Your task to perform on an android device: refresh tabs in the chrome app Image 0: 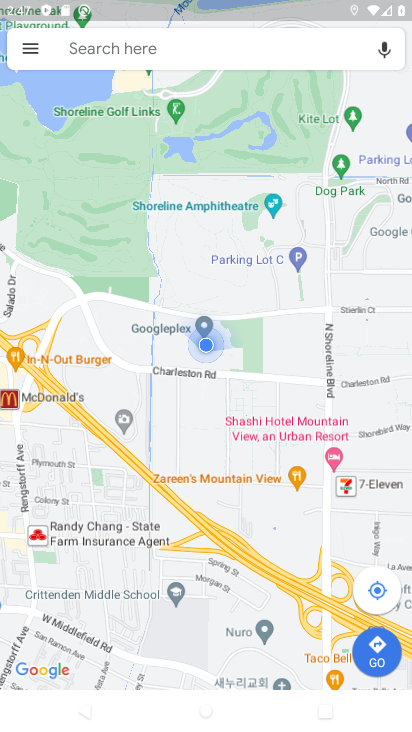
Step 0: press home button
Your task to perform on an android device: refresh tabs in the chrome app Image 1: 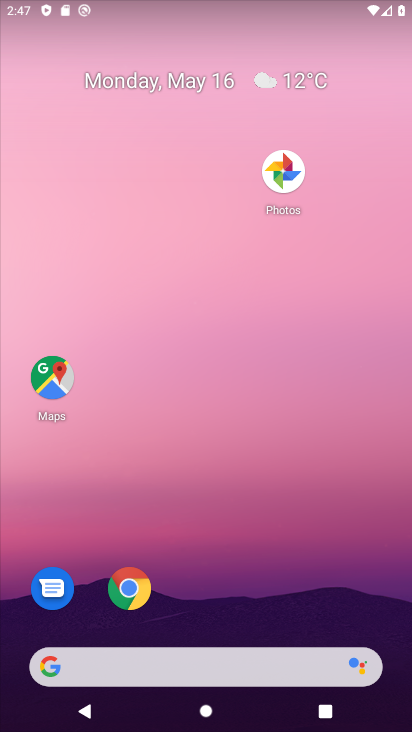
Step 1: click (132, 588)
Your task to perform on an android device: refresh tabs in the chrome app Image 2: 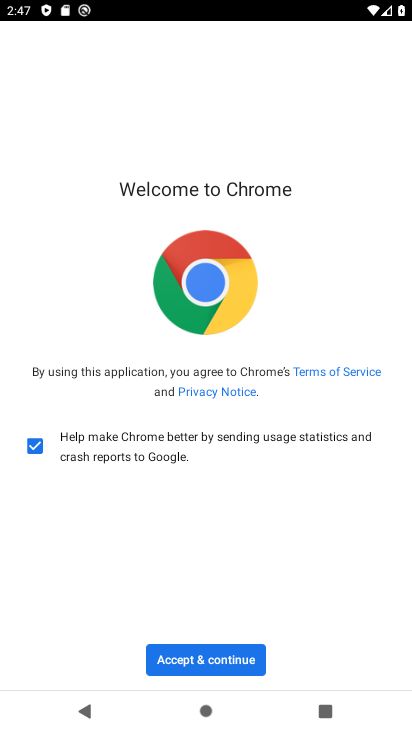
Step 2: click (199, 660)
Your task to perform on an android device: refresh tabs in the chrome app Image 3: 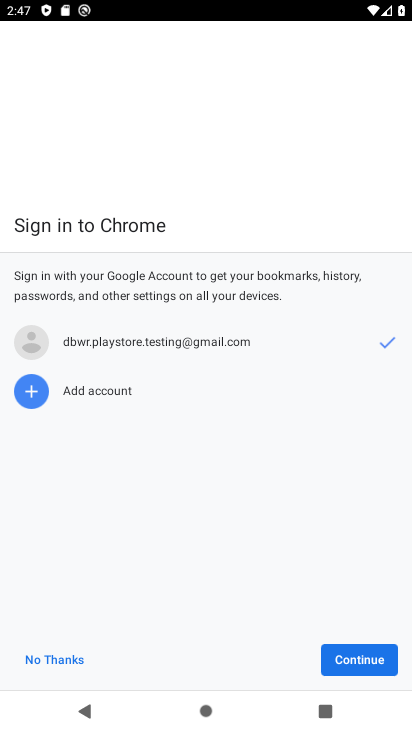
Step 3: click (345, 662)
Your task to perform on an android device: refresh tabs in the chrome app Image 4: 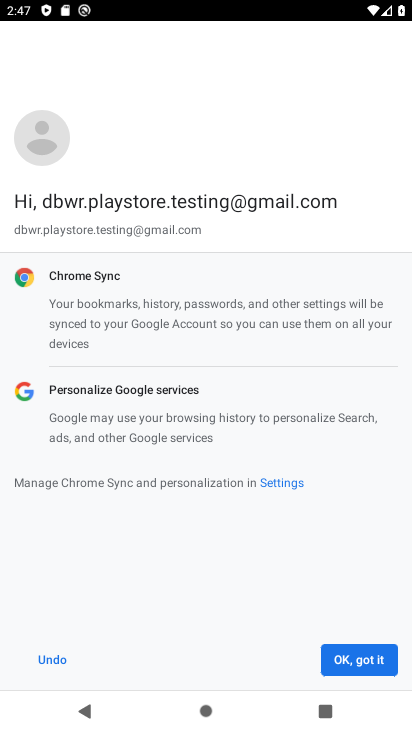
Step 4: click (353, 658)
Your task to perform on an android device: refresh tabs in the chrome app Image 5: 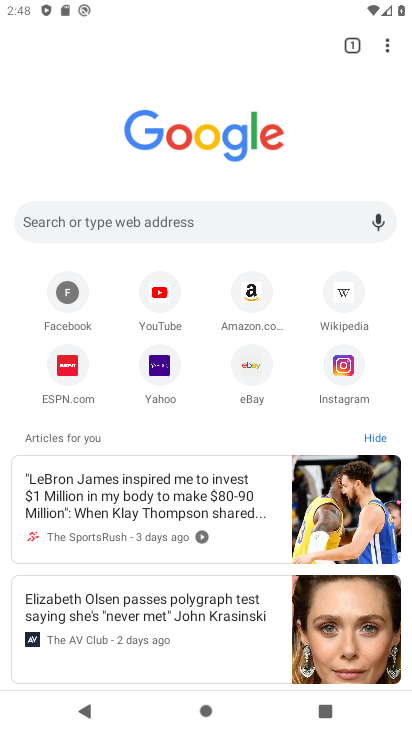
Step 5: click (393, 59)
Your task to perform on an android device: refresh tabs in the chrome app Image 6: 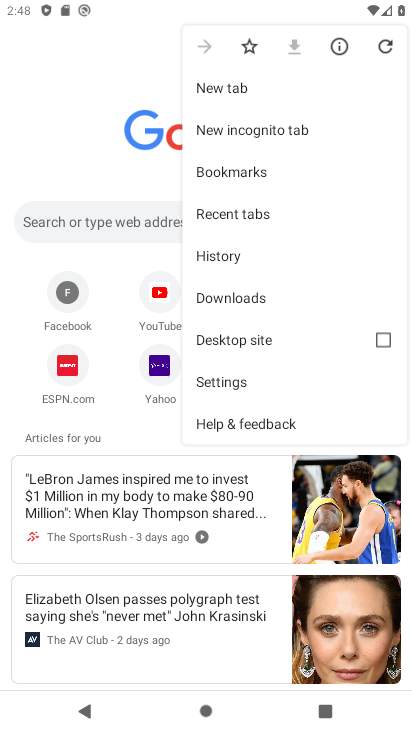
Step 6: click (378, 55)
Your task to perform on an android device: refresh tabs in the chrome app Image 7: 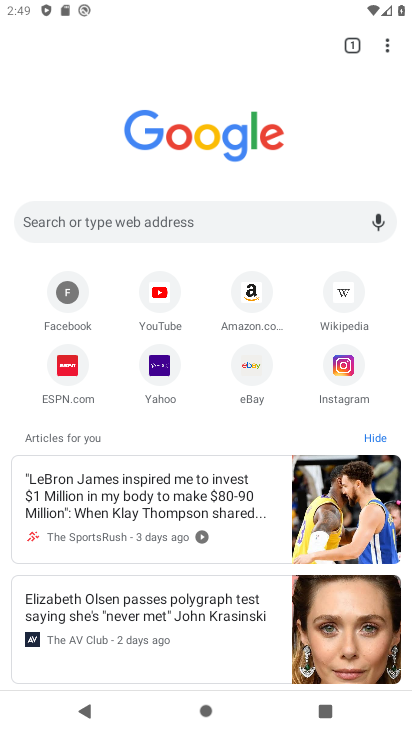
Step 7: click (393, 48)
Your task to perform on an android device: refresh tabs in the chrome app Image 8: 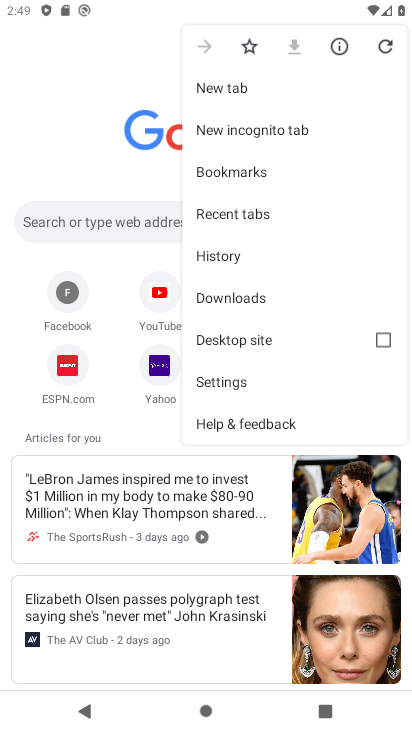
Step 8: click (393, 48)
Your task to perform on an android device: refresh tabs in the chrome app Image 9: 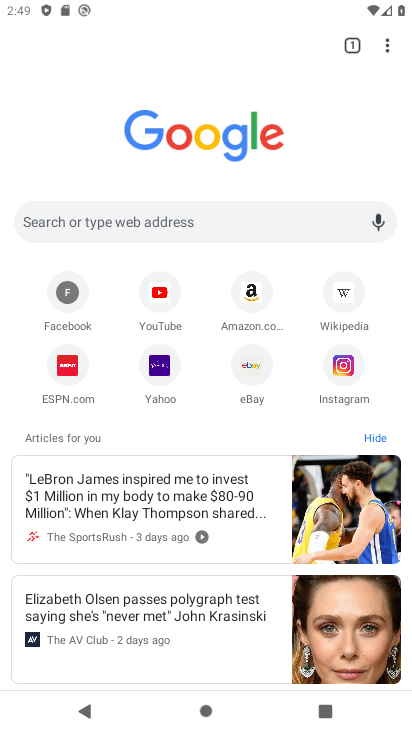
Step 9: task complete